Your task to perform on an android device: When is my next meeting? Image 0: 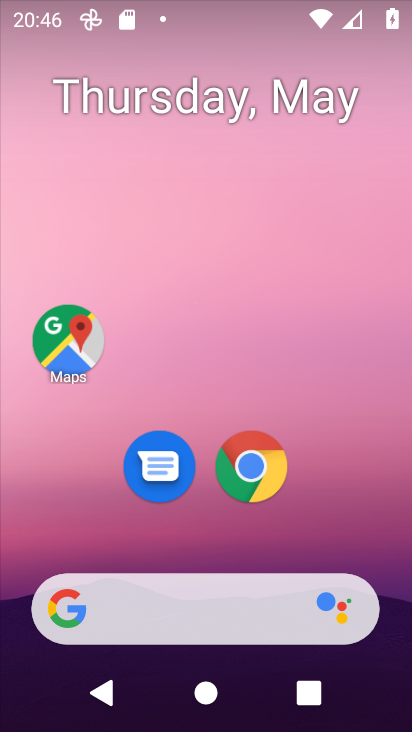
Step 0: drag from (391, 526) to (370, 49)
Your task to perform on an android device: When is my next meeting? Image 1: 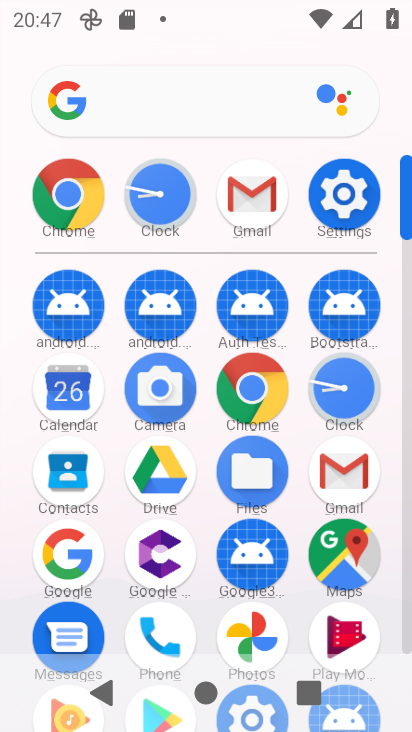
Step 1: click (361, 212)
Your task to perform on an android device: When is my next meeting? Image 2: 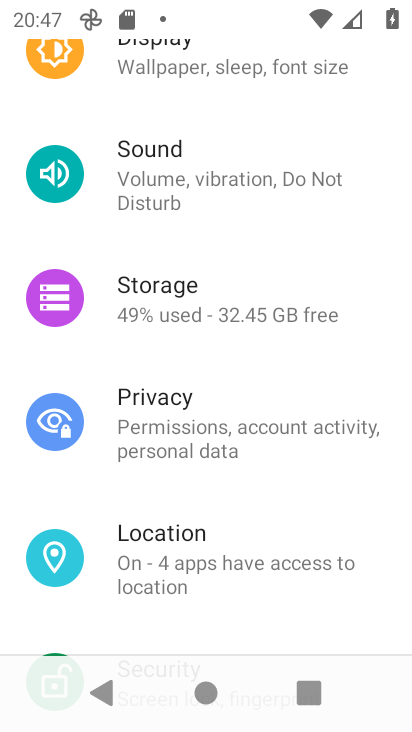
Step 2: task complete